Your task to perform on an android device: toggle priority inbox in the gmail app Image 0: 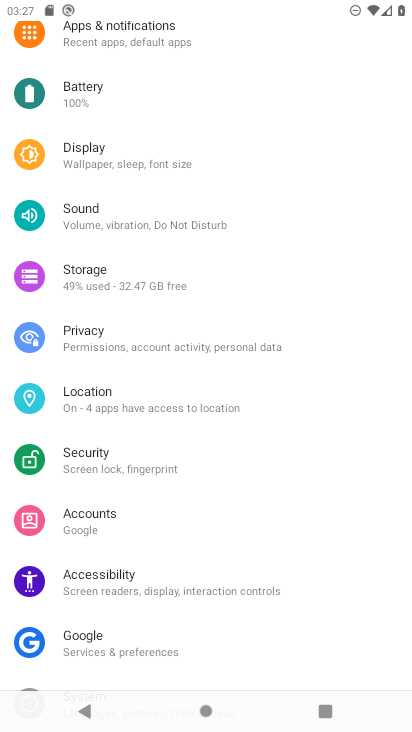
Step 0: press home button
Your task to perform on an android device: toggle priority inbox in the gmail app Image 1: 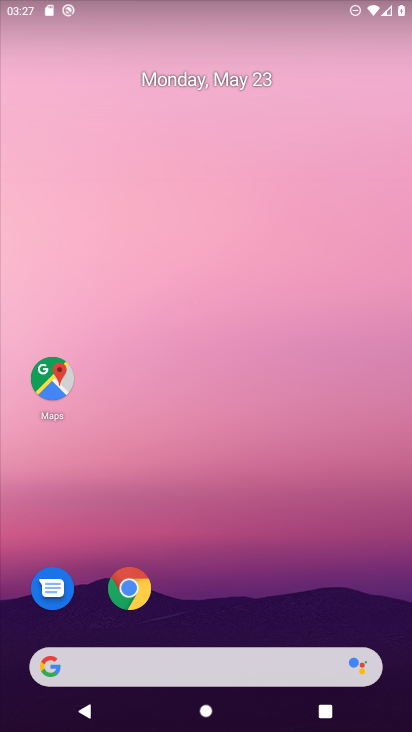
Step 1: drag from (232, 695) to (229, 65)
Your task to perform on an android device: toggle priority inbox in the gmail app Image 2: 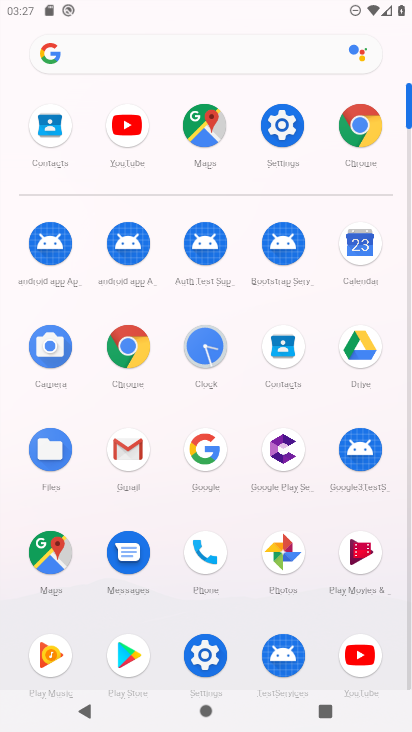
Step 2: click (120, 441)
Your task to perform on an android device: toggle priority inbox in the gmail app Image 3: 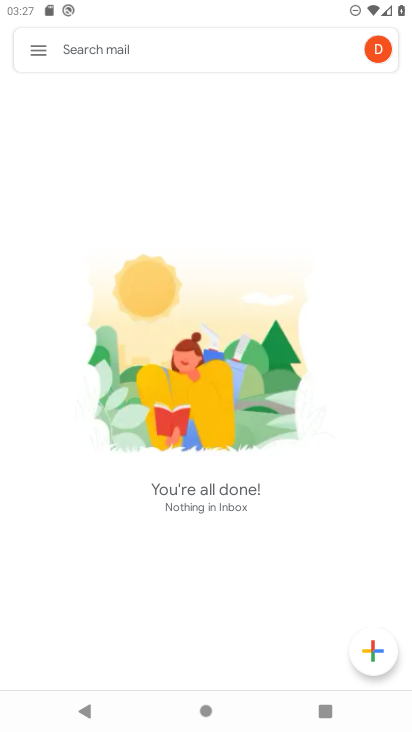
Step 3: click (41, 50)
Your task to perform on an android device: toggle priority inbox in the gmail app Image 4: 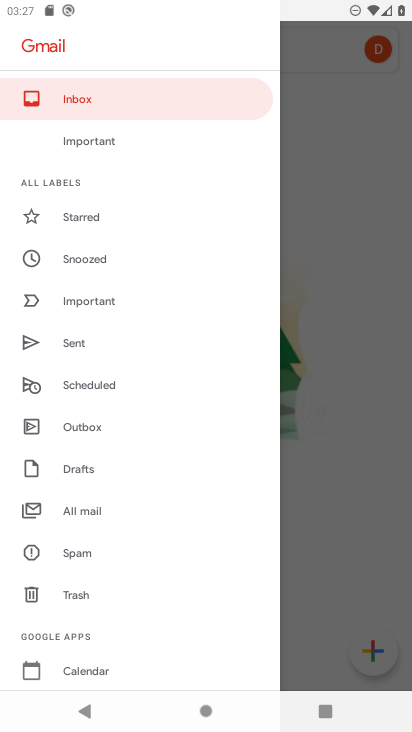
Step 4: drag from (138, 585) to (144, 355)
Your task to perform on an android device: toggle priority inbox in the gmail app Image 5: 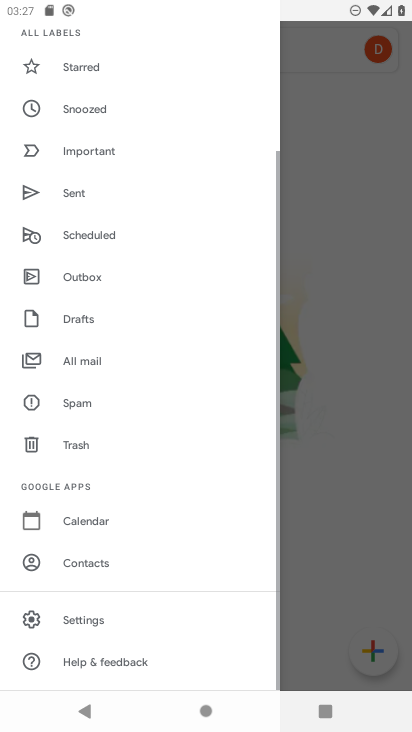
Step 5: click (108, 614)
Your task to perform on an android device: toggle priority inbox in the gmail app Image 6: 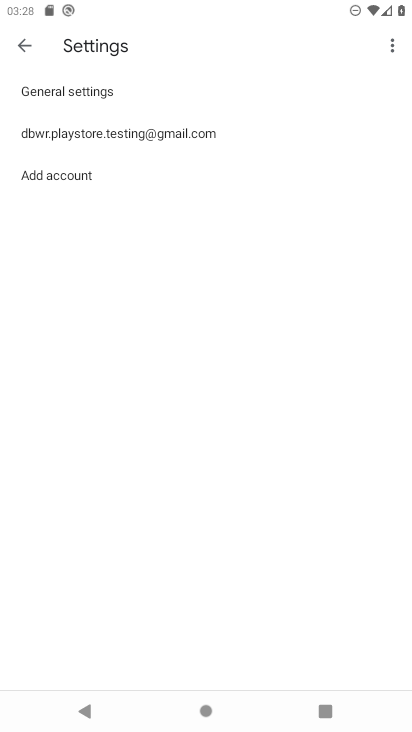
Step 6: click (143, 133)
Your task to perform on an android device: toggle priority inbox in the gmail app Image 7: 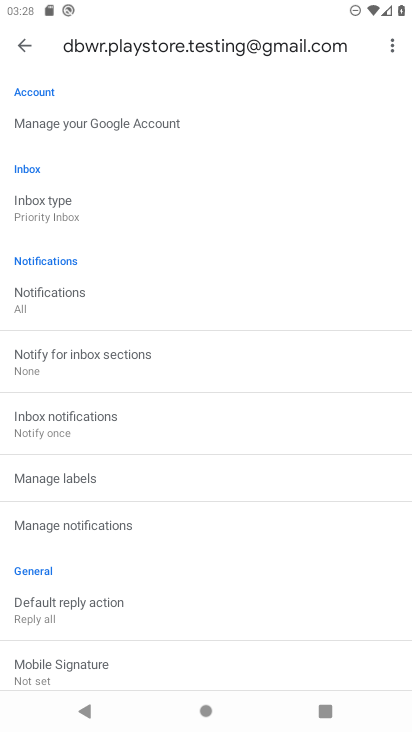
Step 7: click (64, 204)
Your task to perform on an android device: toggle priority inbox in the gmail app Image 8: 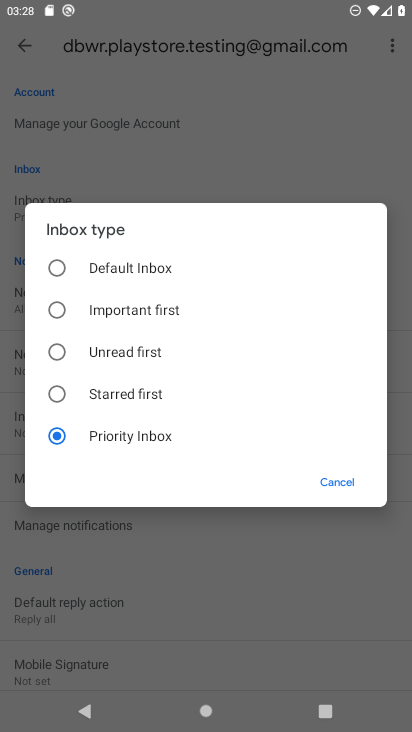
Step 8: click (52, 268)
Your task to perform on an android device: toggle priority inbox in the gmail app Image 9: 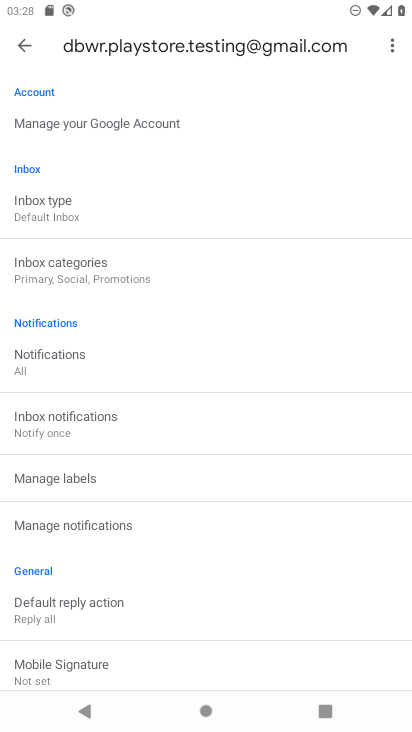
Step 9: task complete